Your task to perform on an android device: snooze an email in the gmail app Image 0: 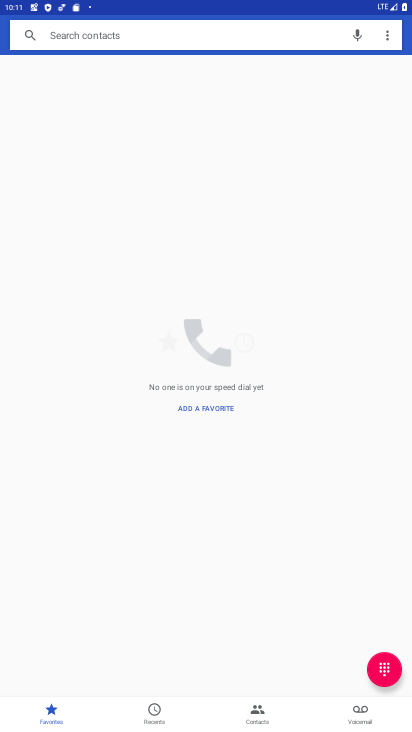
Step 0: press home button
Your task to perform on an android device: snooze an email in the gmail app Image 1: 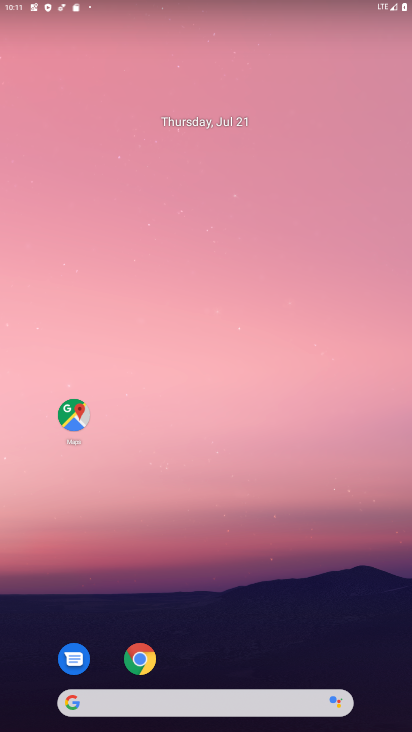
Step 1: drag from (324, 621) to (312, 78)
Your task to perform on an android device: snooze an email in the gmail app Image 2: 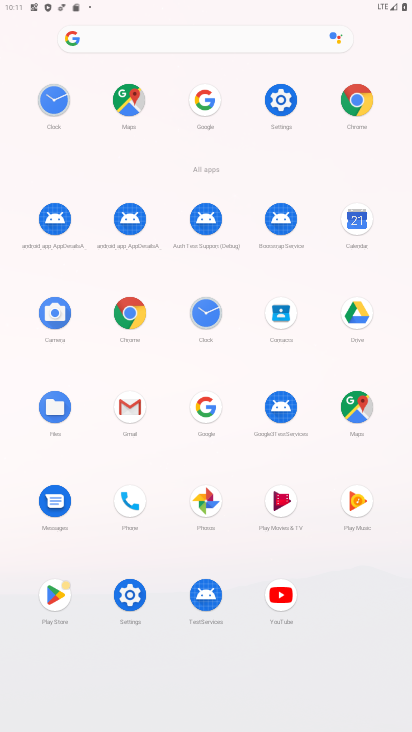
Step 2: click (140, 402)
Your task to perform on an android device: snooze an email in the gmail app Image 3: 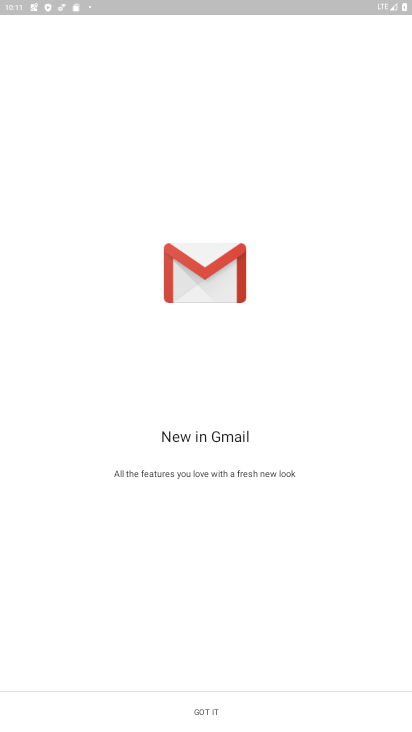
Step 3: click (238, 703)
Your task to perform on an android device: snooze an email in the gmail app Image 4: 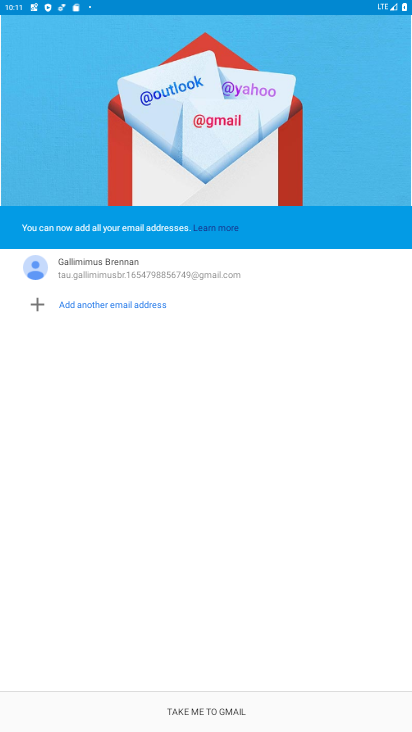
Step 4: click (307, 709)
Your task to perform on an android device: snooze an email in the gmail app Image 5: 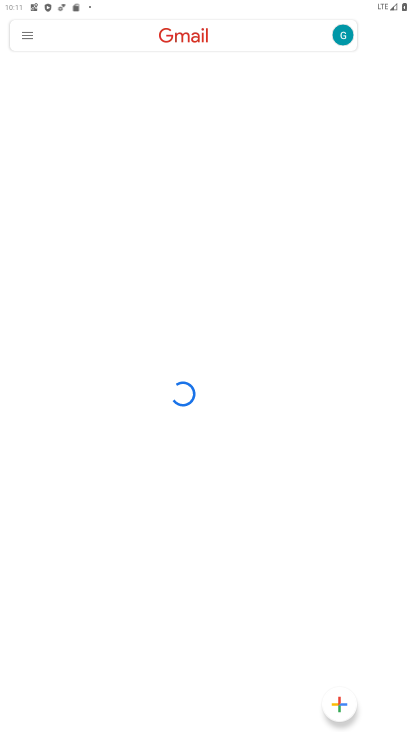
Step 5: click (24, 33)
Your task to perform on an android device: snooze an email in the gmail app Image 6: 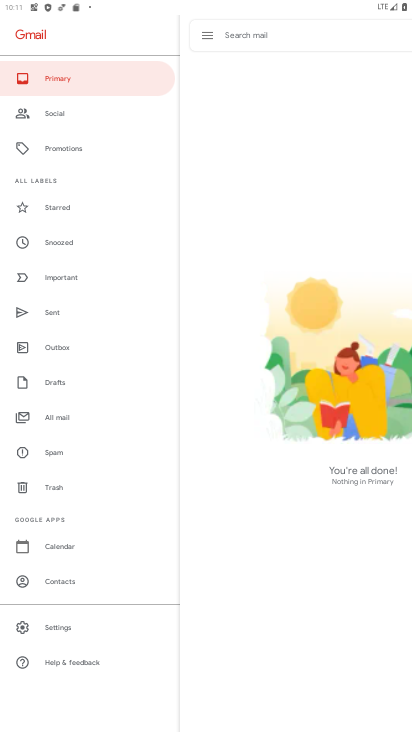
Step 6: click (61, 414)
Your task to perform on an android device: snooze an email in the gmail app Image 7: 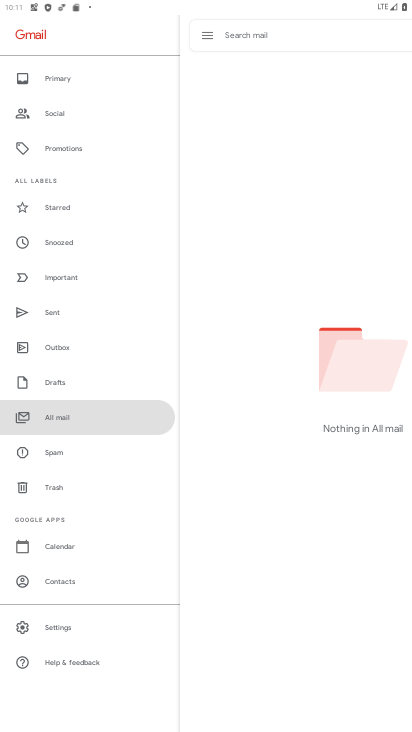
Step 7: task complete